Your task to perform on an android device: What's the weather going to be this weekend? Image 0: 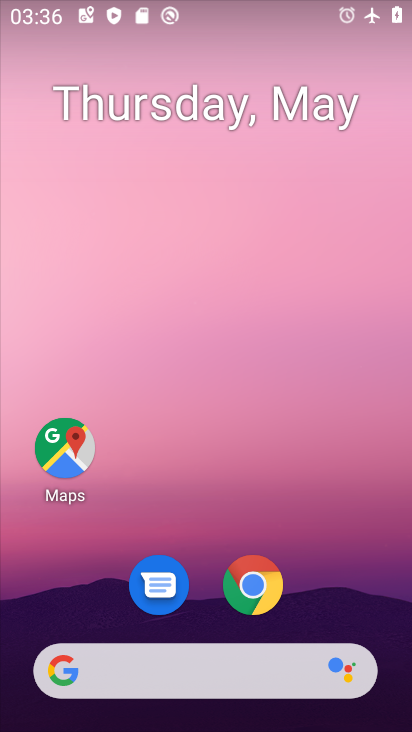
Step 0: click (191, 683)
Your task to perform on an android device: What's the weather going to be this weekend? Image 1: 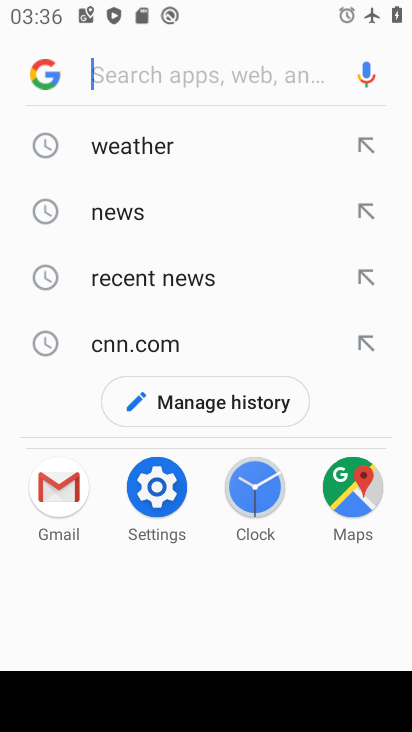
Step 1: click (152, 140)
Your task to perform on an android device: What's the weather going to be this weekend? Image 2: 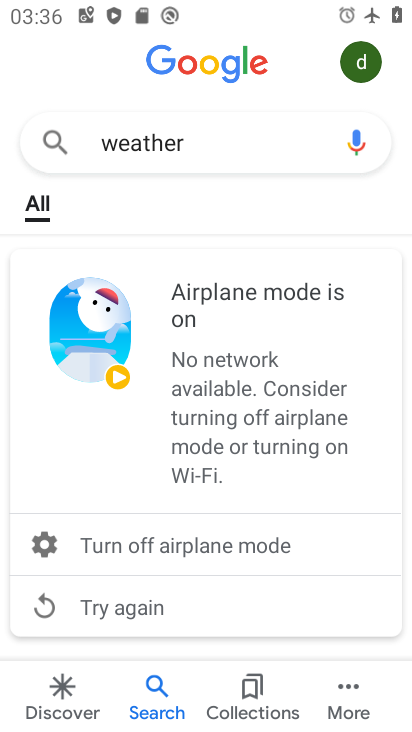
Step 2: task complete